Your task to perform on an android device: check the backup settings in the google photos Image 0: 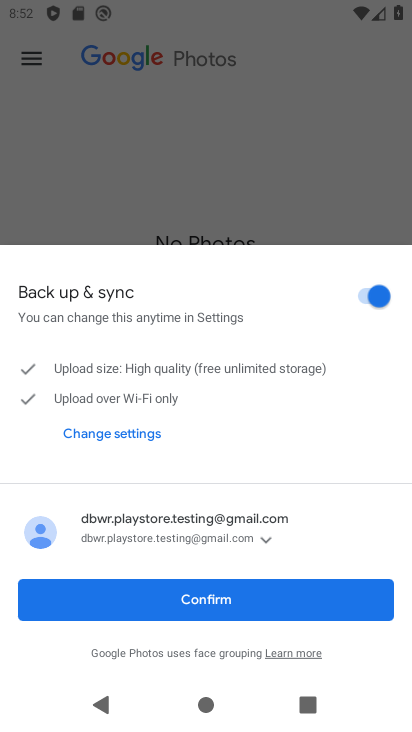
Step 0: press home button
Your task to perform on an android device: check the backup settings in the google photos Image 1: 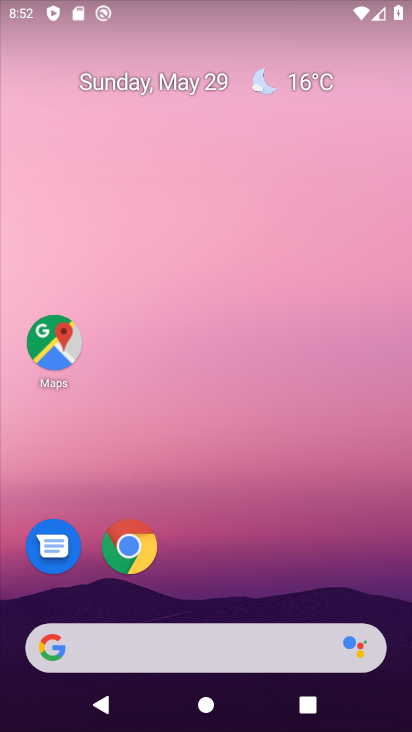
Step 1: drag from (357, 625) to (333, 260)
Your task to perform on an android device: check the backup settings in the google photos Image 2: 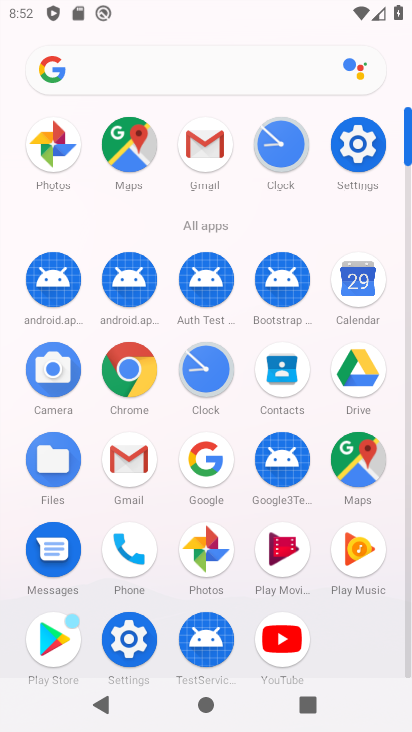
Step 2: click (189, 545)
Your task to perform on an android device: check the backup settings in the google photos Image 3: 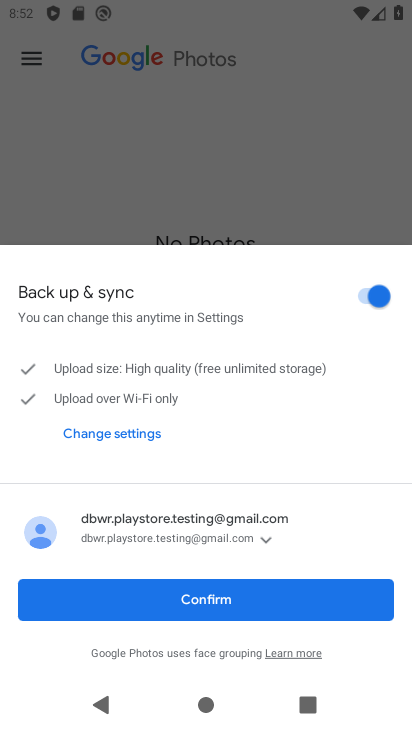
Step 3: click (212, 597)
Your task to perform on an android device: check the backup settings in the google photos Image 4: 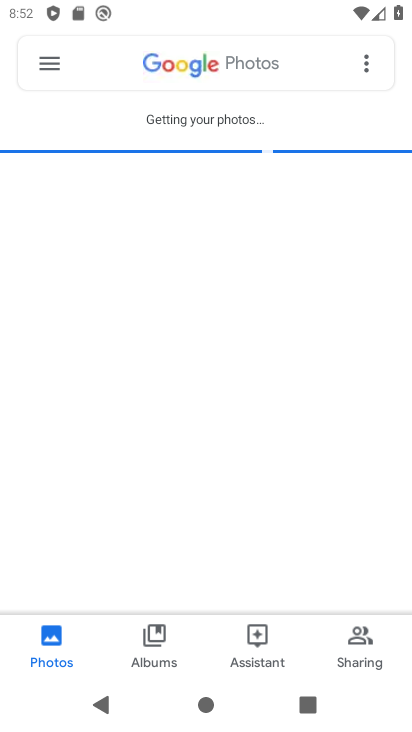
Step 4: click (27, 56)
Your task to perform on an android device: check the backup settings in the google photos Image 5: 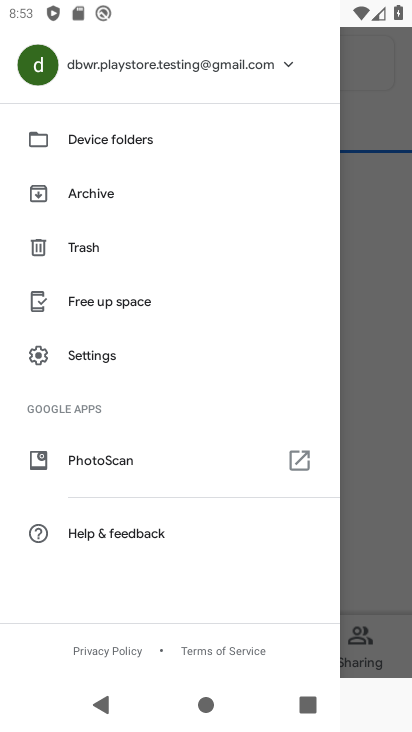
Step 5: click (126, 355)
Your task to perform on an android device: check the backup settings in the google photos Image 6: 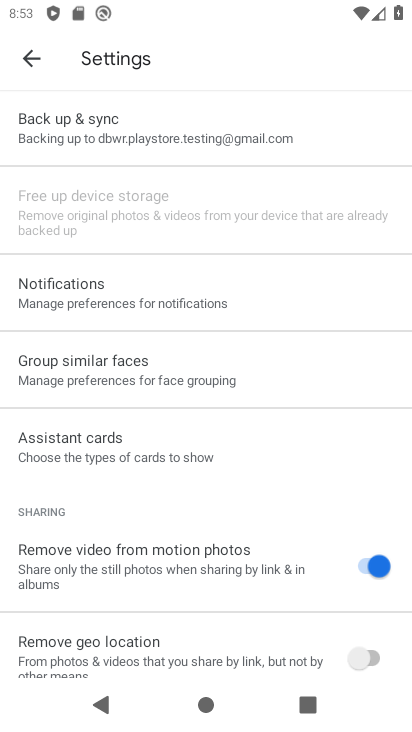
Step 6: click (99, 115)
Your task to perform on an android device: check the backup settings in the google photos Image 7: 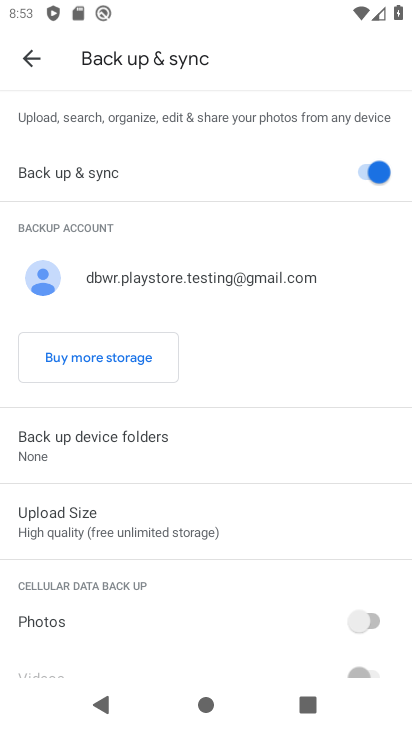
Step 7: task complete